Your task to perform on an android device: Open the map Image 0: 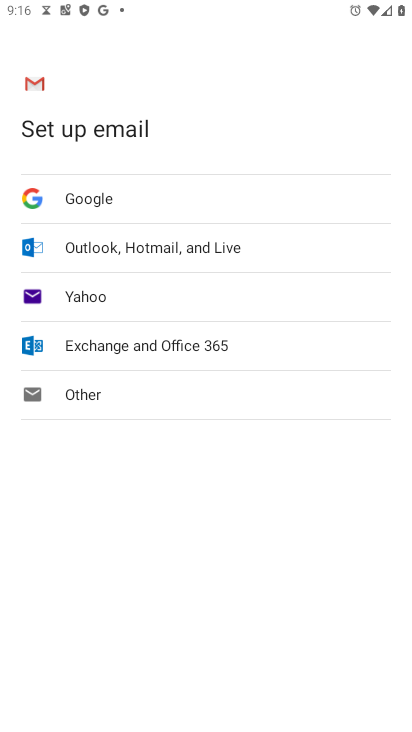
Step 0: press home button
Your task to perform on an android device: Open the map Image 1: 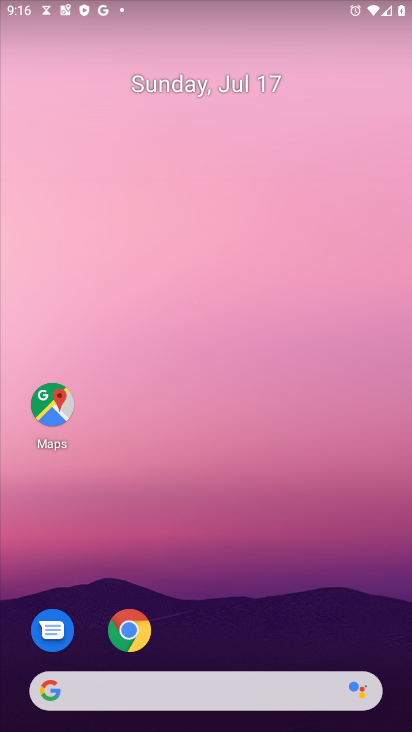
Step 1: click (46, 403)
Your task to perform on an android device: Open the map Image 2: 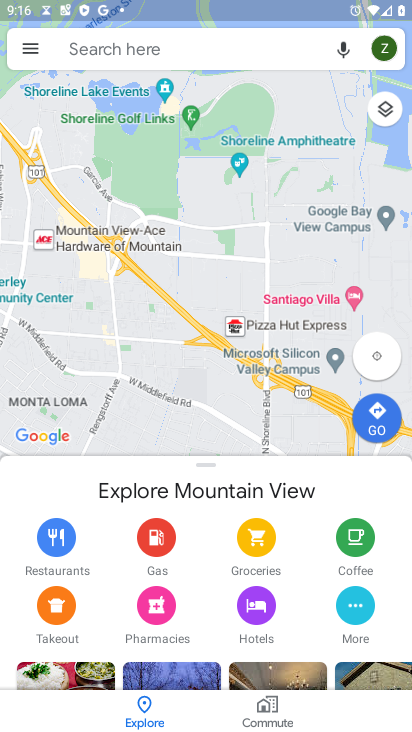
Step 2: task complete